Your task to perform on an android device: Go to CNN.com Image 0: 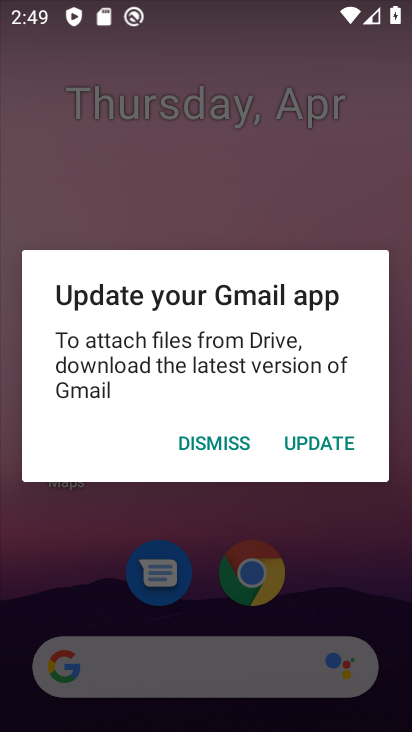
Step 0: press home button
Your task to perform on an android device: Go to CNN.com Image 1: 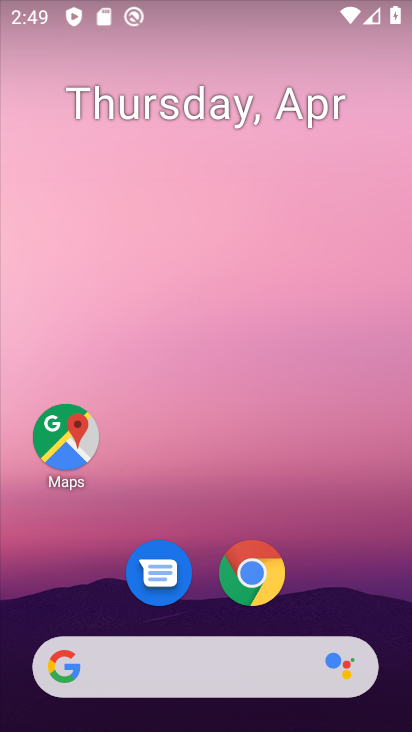
Step 1: drag from (339, 610) to (318, 91)
Your task to perform on an android device: Go to CNN.com Image 2: 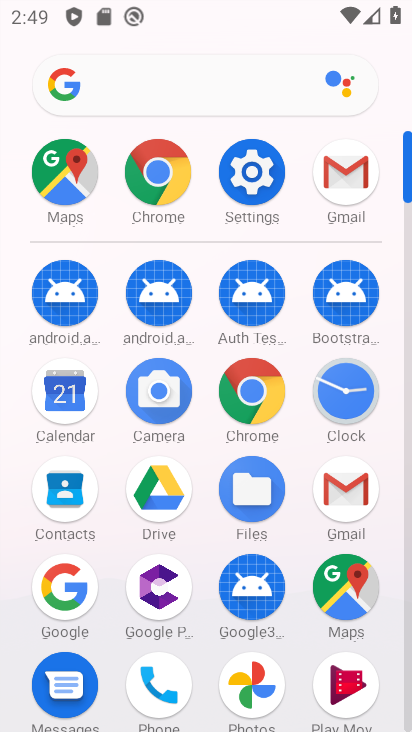
Step 2: click (247, 396)
Your task to perform on an android device: Go to CNN.com Image 3: 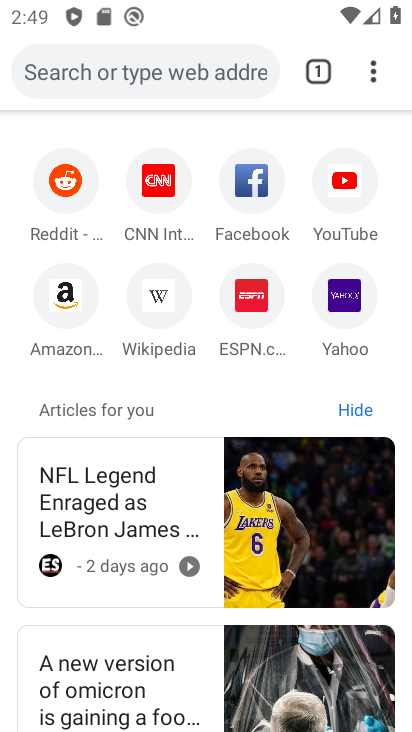
Step 3: click (126, 78)
Your task to perform on an android device: Go to CNN.com Image 4: 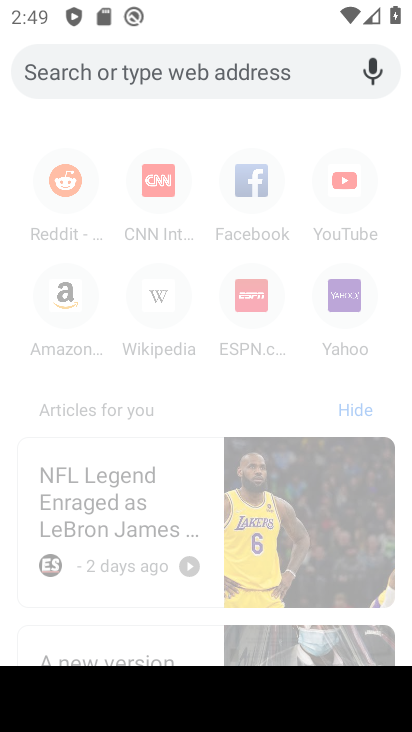
Step 4: type "cnn.com"
Your task to perform on an android device: Go to CNN.com Image 5: 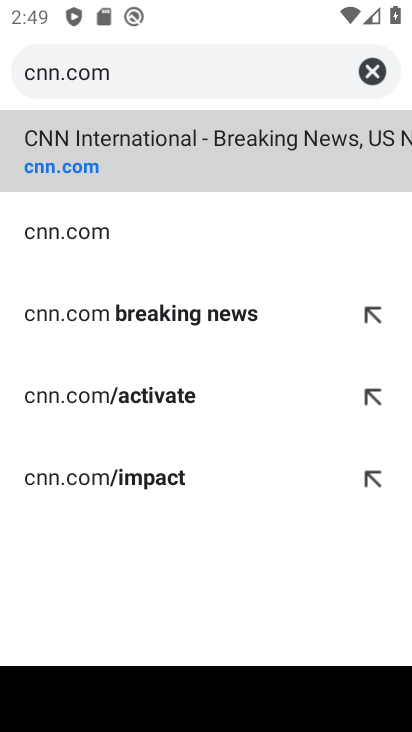
Step 5: click (176, 157)
Your task to perform on an android device: Go to CNN.com Image 6: 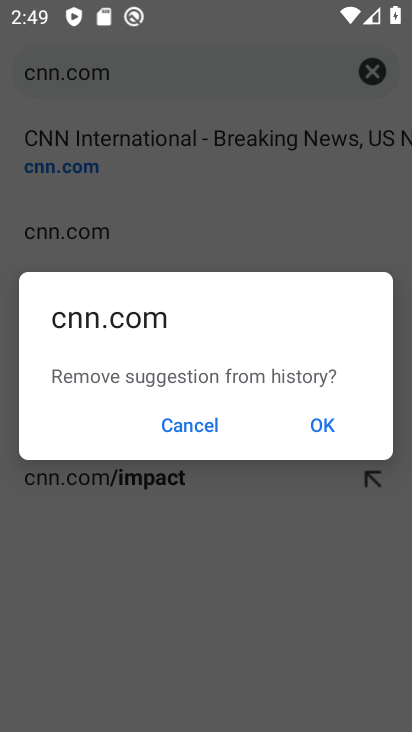
Step 6: click (310, 430)
Your task to perform on an android device: Go to CNN.com Image 7: 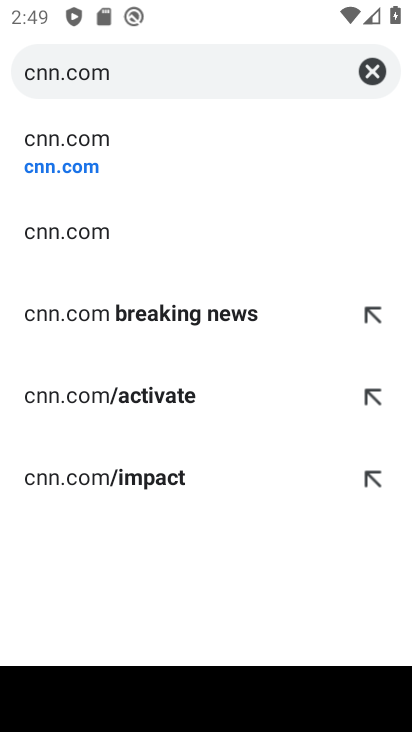
Step 7: click (180, 137)
Your task to perform on an android device: Go to CNN.com Image 8: 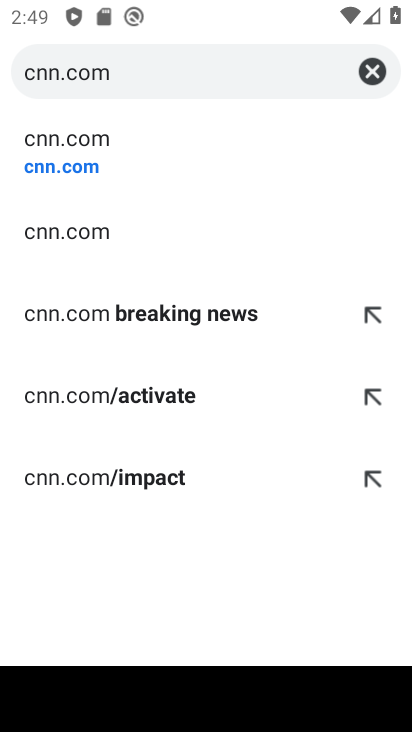
Step 8: click (111, 151)
Your task to perform on an android device: Go to CNN.com Image 9: 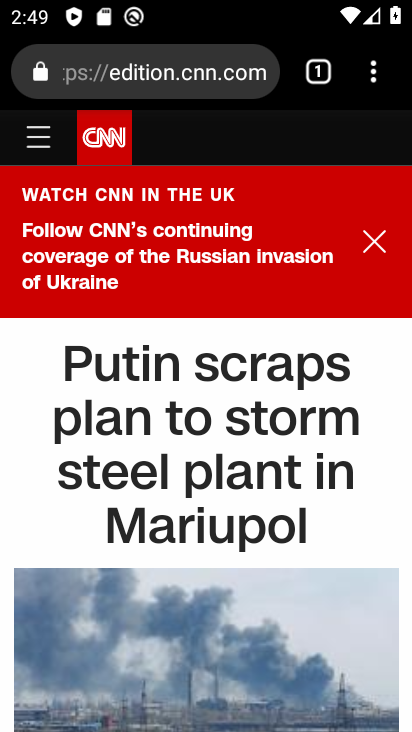
Step 9: task complete